Your task to perform on an android device: allow cookies in the chrome app Image 0: 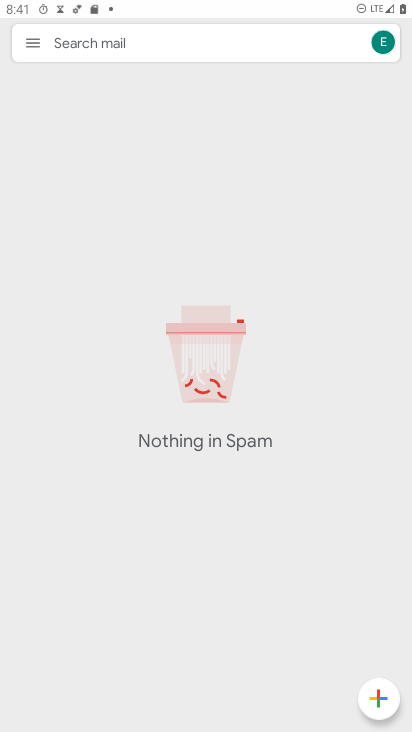
Step 0: press home button
Your task to perform on an android device: allow cookies in the chrome app Image 1: 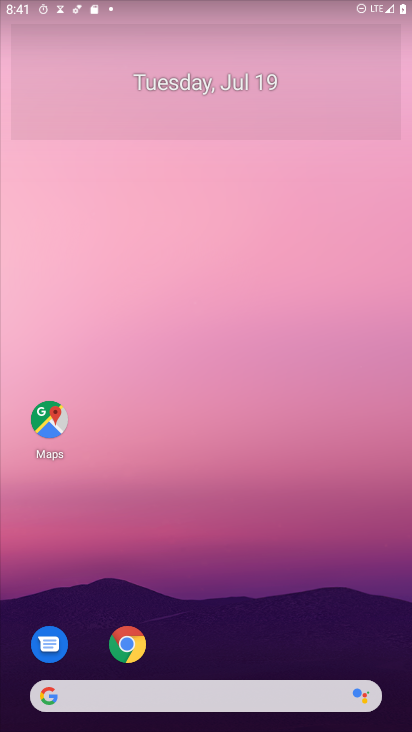
Step 1: click (137, 655)
Your task to perform on an android device: allow cookies in the chrome app Image 2: 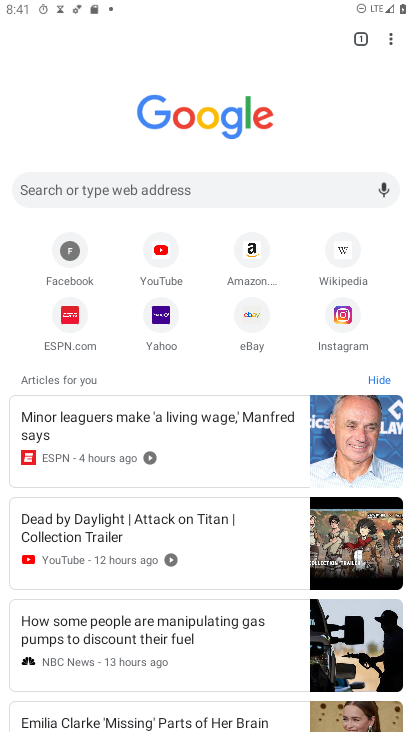
Step 2: click (392, 40)
Your task to perform on an android device: allow cookies in the chrome app Image 3: 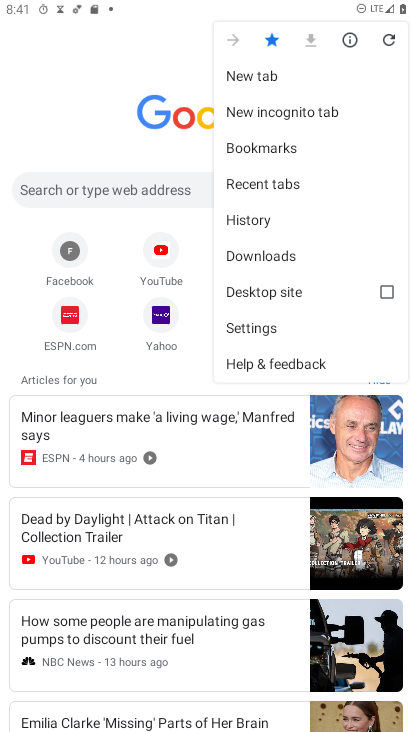
Step 3: click (253, 321)
Your task to perform on an android device: allow cookies in the chrome app Image 4: 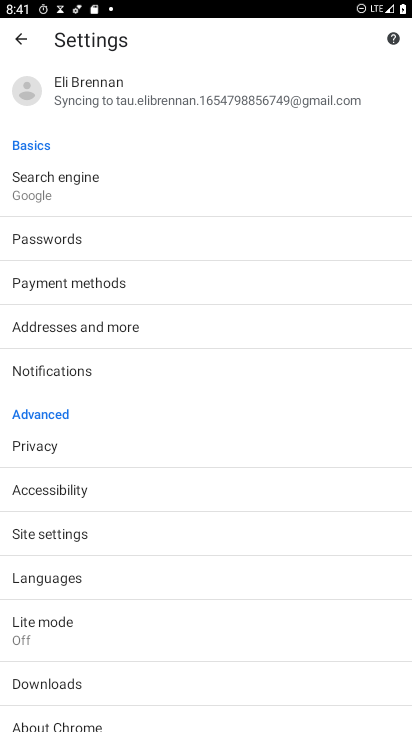
Step 4: click (25, 531)
Your task to perform on an android device: allow cookies in the chrome app Image 5: 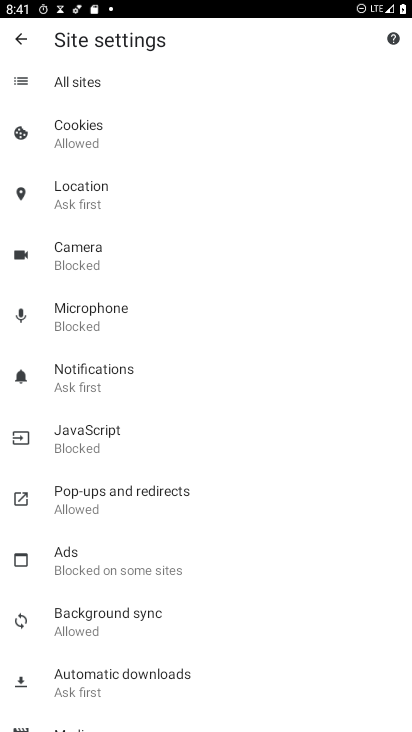
Step 5: click (107, 138)
Your task to perform on an android device: allow cookies in the chrome app Image 6: 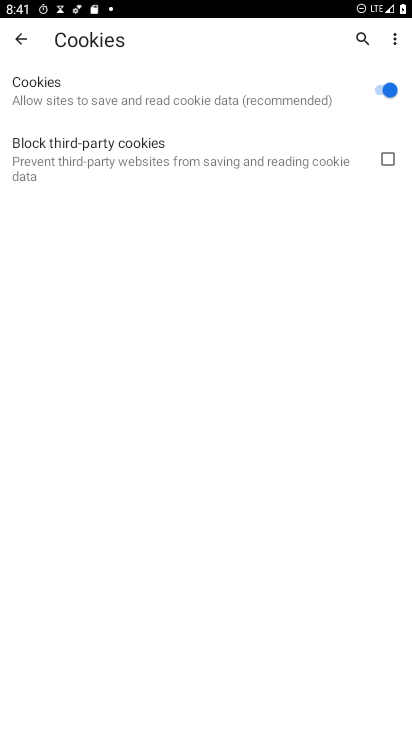
Step 6: task complete